Your task to perform on an android device: Open network settings Image 0: 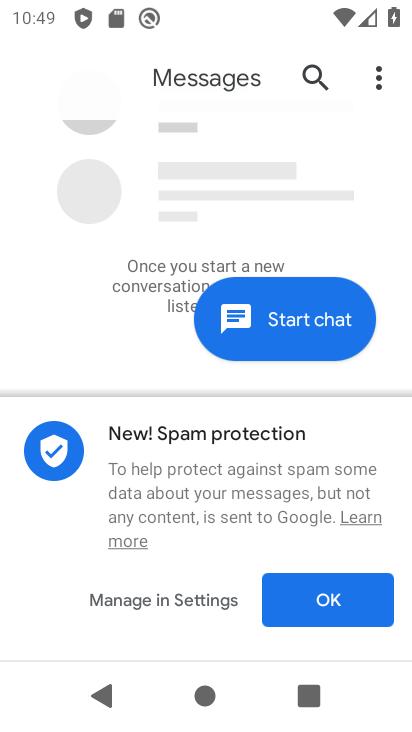
Step 0: press home button
Your task to perform on an android device: Open network settings Image 1: 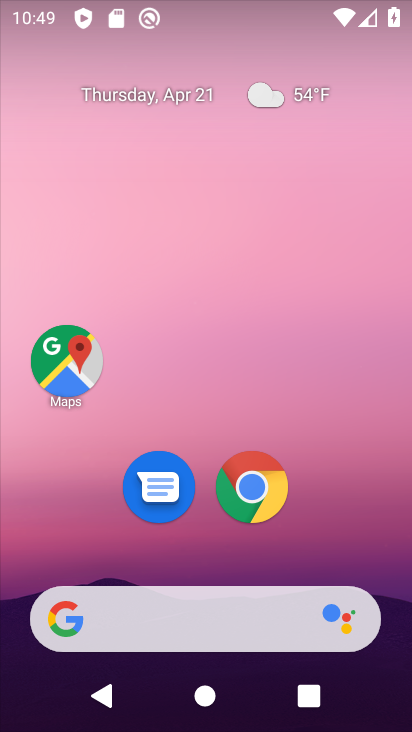
Step 1: drag from (328, 529) to (332, 185)
Your task to perform on an android device: Open network settings Image 2: 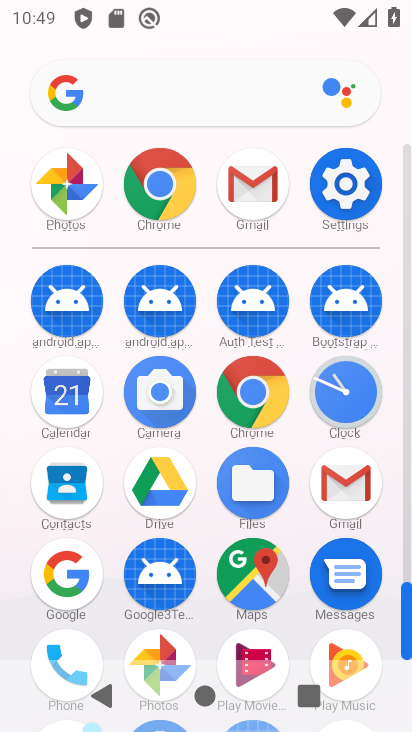
Step 2: click (341, 187)
Your task to perform on an android device: Open network settings Image 3: 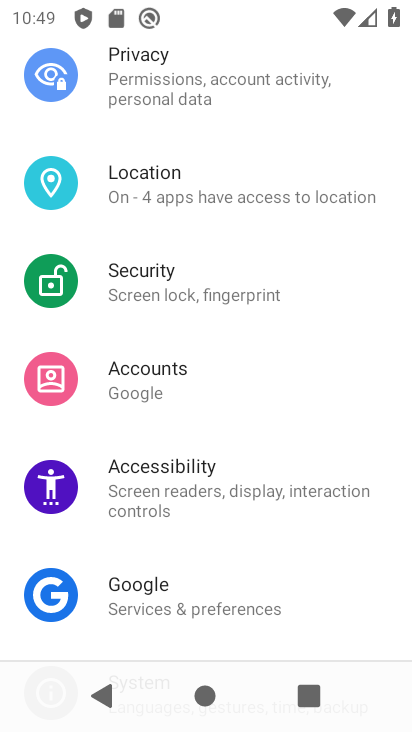
Step 3: drag from (291, 119) to (260, 552)
Your task to perform on an android device: Open network settings Image 4: 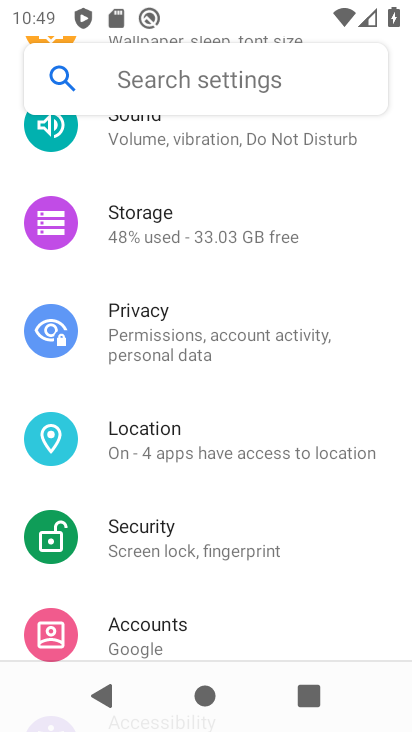
Step 4: drag from (277, 279) to (282, 596)
Your task to perform on an android device: Open network settings Image 5: 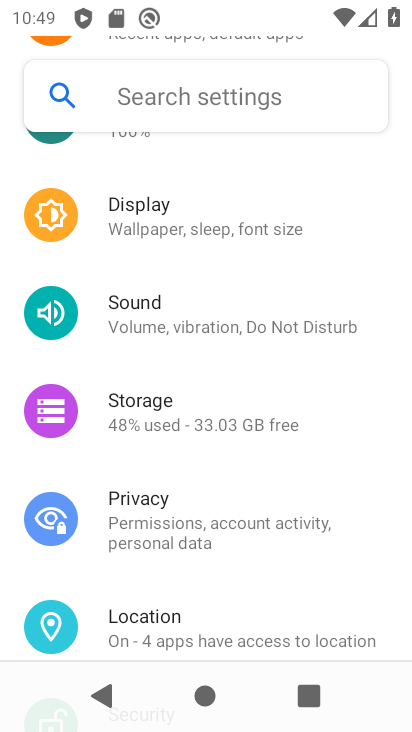
Step 5: drag from (324, 214) to (325, 590)
Your task to perform on an android device: Open network settings Image 6: 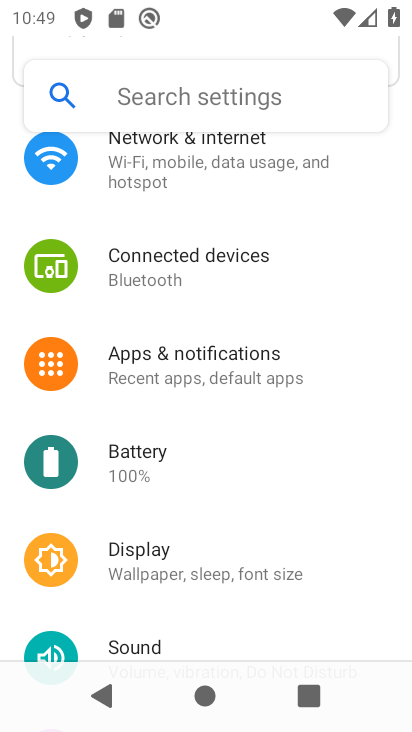
Step 6: drag from (333, 248) to (340, 543)
Your task to perform on an android device: Open network settings Image 7: 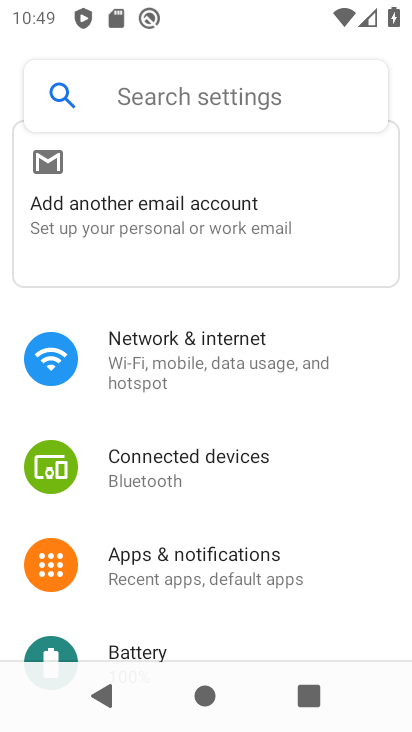
Step 7: click (252, 354)
Your task to perform on an android device: Open network settings Image 8: 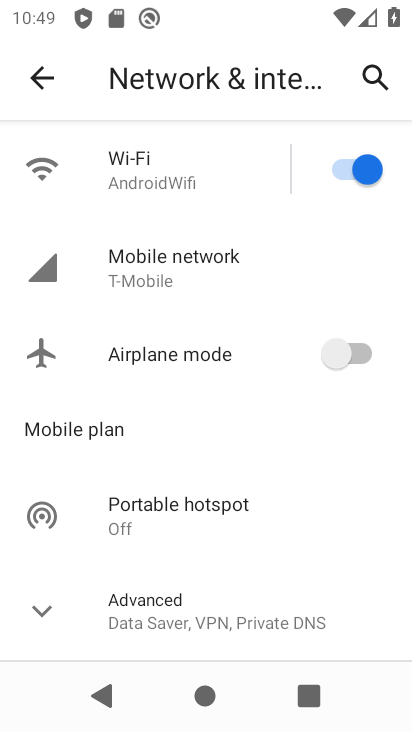
Step 8: task complete